Your task to perform on an android device: change notifications settings Image 0: 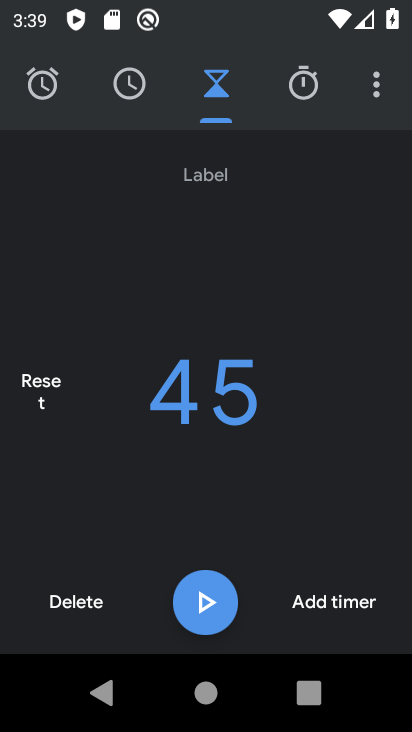
Step 0: press home button
Your task to perform on an android device: change notifications settings Image 1: 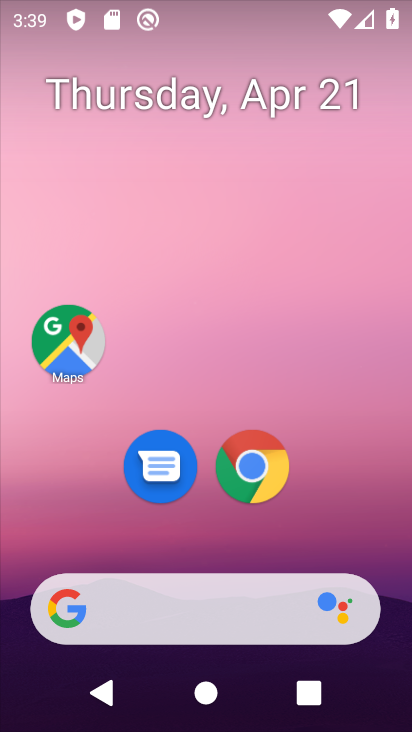
Step 1: drag from (230, 545) to (241, 174)
Your task to perform on an android device: change notifications settings Image 2: 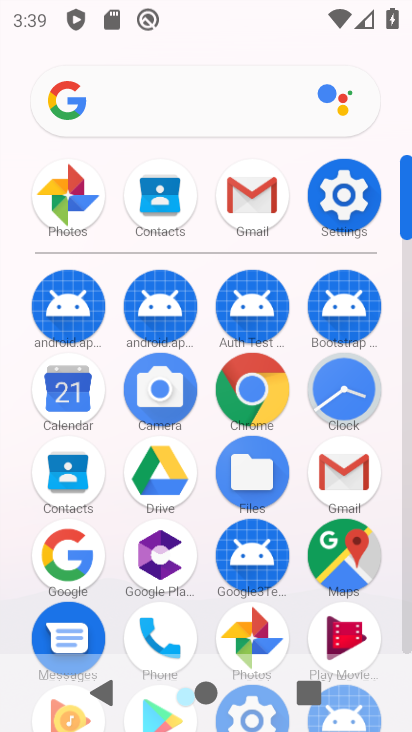
Step 2: click (329, 187)
Your task to perform on an android device: change notifications settings Image 3: 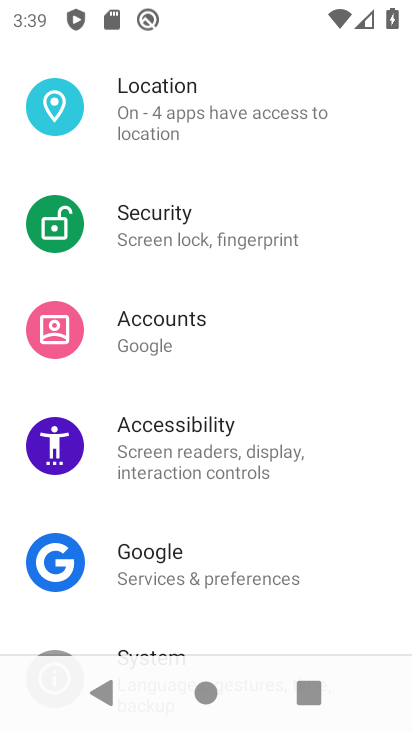
Step 3: drag from (247, 208) to (245, 570)
Your task to perform on an android device: change notifications settings Image 4: 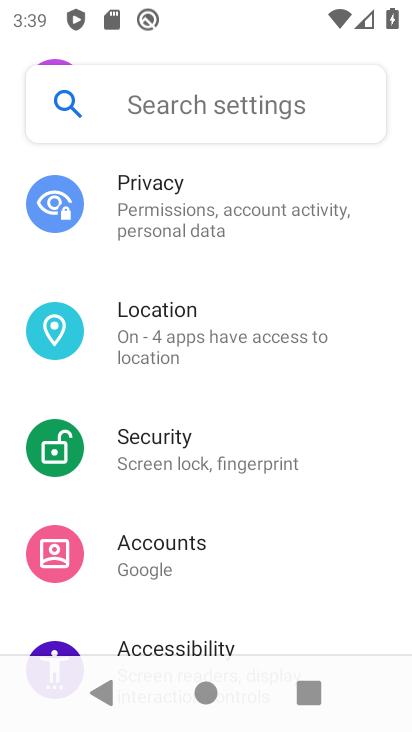
Step 4: drag from (243, 314) to (227, 612)
Your task to perform on an android device: change notifications settings Image 5: 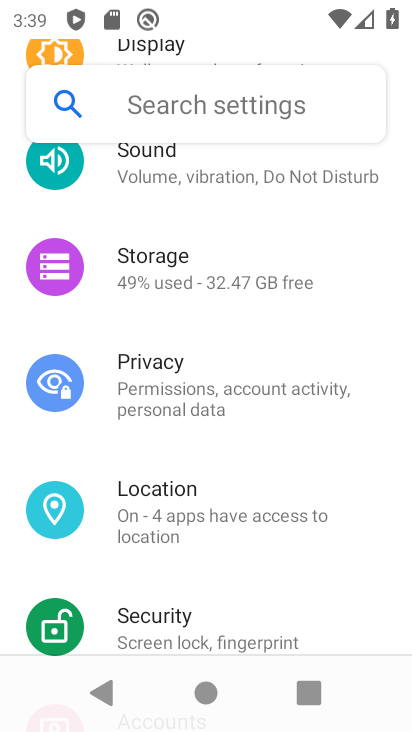
Step 5: drag from (258, 252) to (251, 583)
Your task to perform on an android device: change notifications settings Image 6: 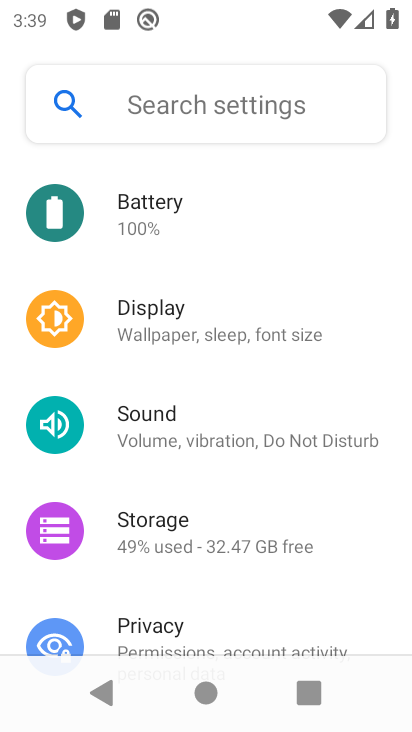
Step 6: drag from (243, 204) to (236, 512)
Your task to perform on an android device: change notifications settings Image 7: 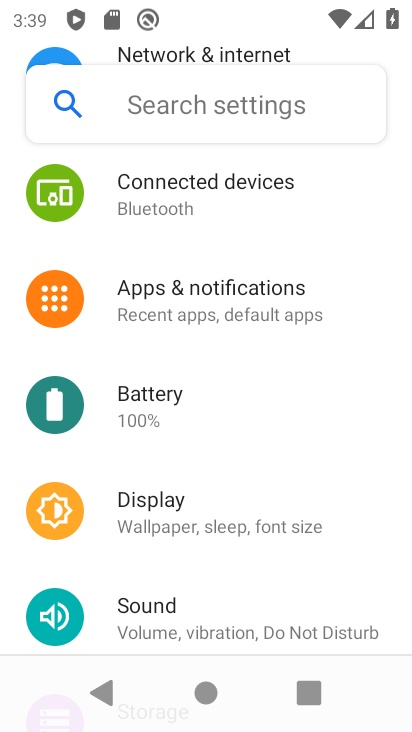
Step 7: click (245, 308)
Your task to perform on an android device: change notifications settings Image 8: 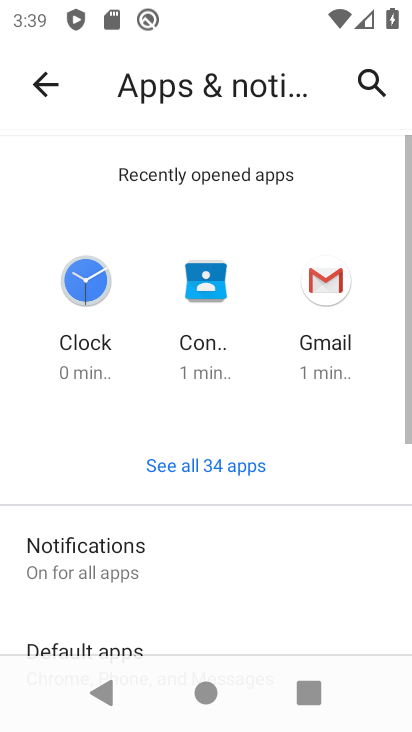
Step 8: drag from (164, 600) to (191, 309)
Your task to perform on an android device: change notifications settings Image 9: 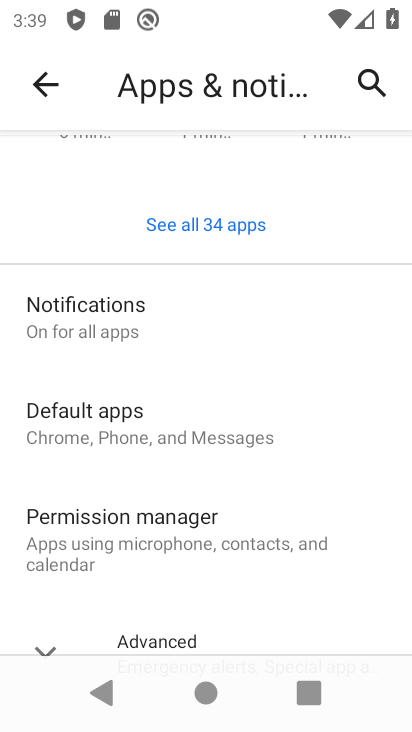
Step 9: click (160, 303)
Your task to perform on an android device: change notifications settings Image 10: 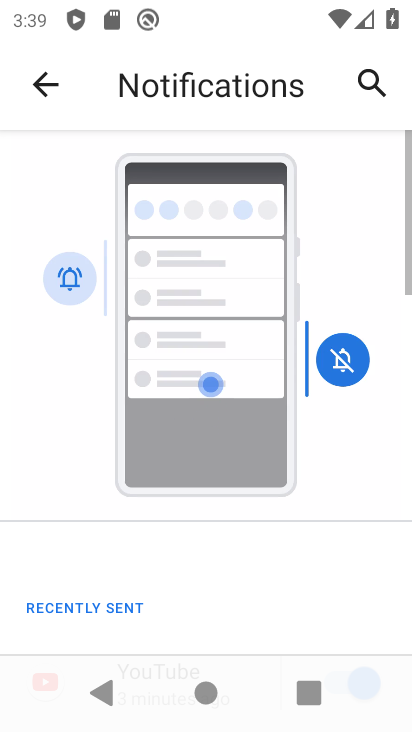
Step 10: drag from (231, 576) to (257, 175)
Your task to perform on an android device: change notifications settings Image 11: 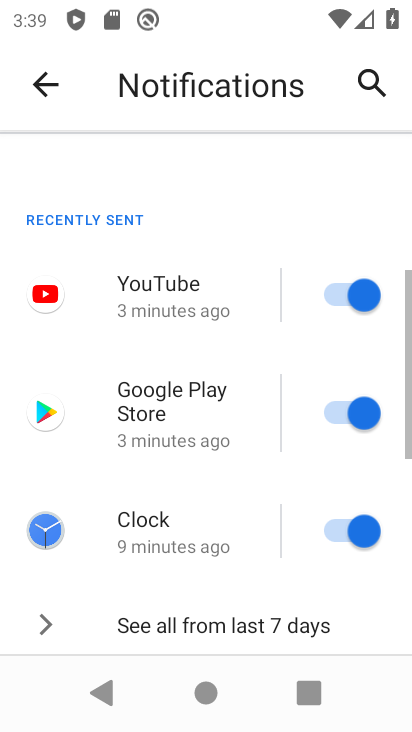
Step 11: drag from (221, 519) to (256, 228)
Your task to perform on an android device: change notifications settings Image 12: 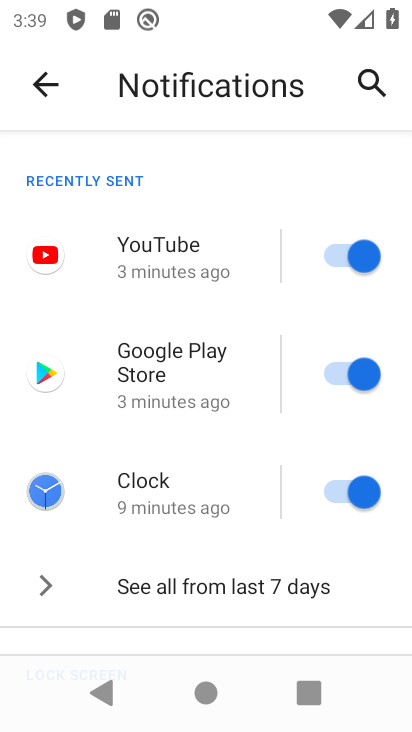
Step 12: drag from (242, 389) to (259, 218)
Your task to perform on an android device: change notifications settings Image 13: 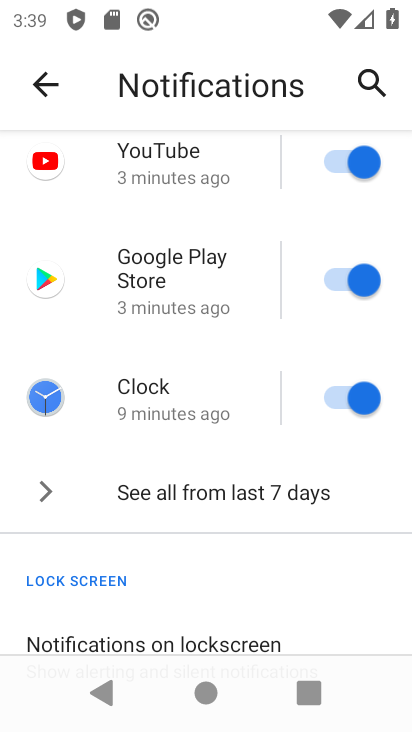
Step 13: drag from (187, 594) to (220, 271)
Your task to perform on an android device: change notifications settings Image 14: 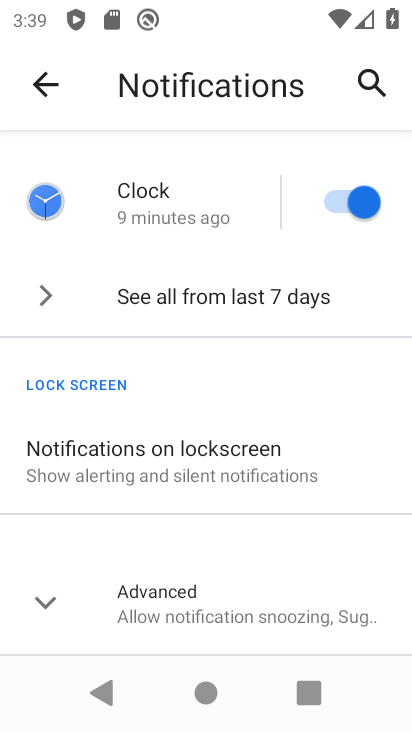
Step 14: drag from (260, 294) to (260, 383)
Your task to perform on an android device: change notifications settings Image 15: 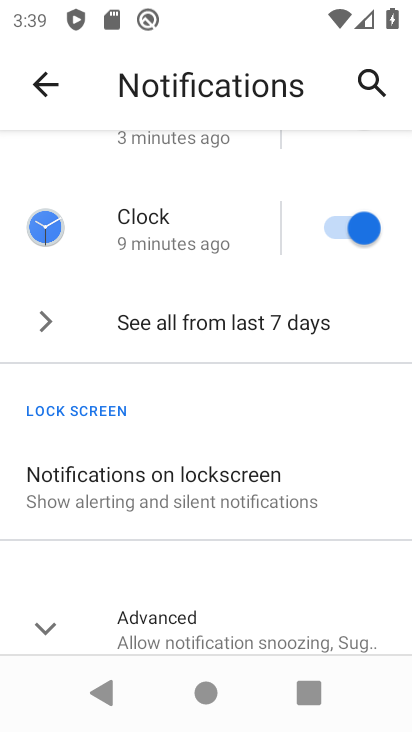
Step 15: click (235, 500)
Your task to perform on an android device: change notifications settings Image 16: 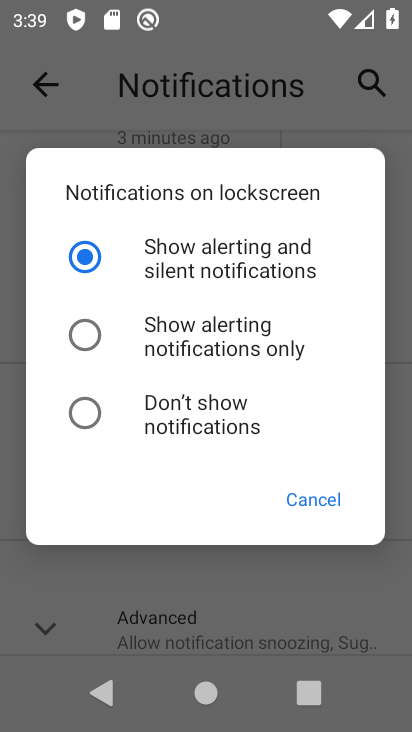
Step 16: click (134, 434)
Your task to perform on an android device: change notifications settings Image 17: 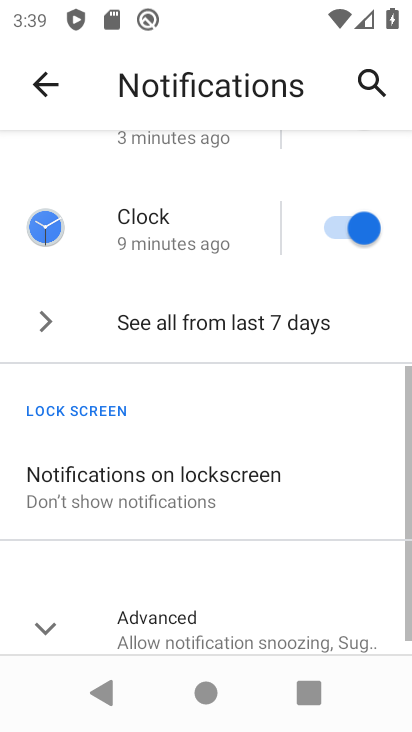
Step 17: task complete